Your task to perform on an android device: delete the emails in spam in the gmail app Image 0: 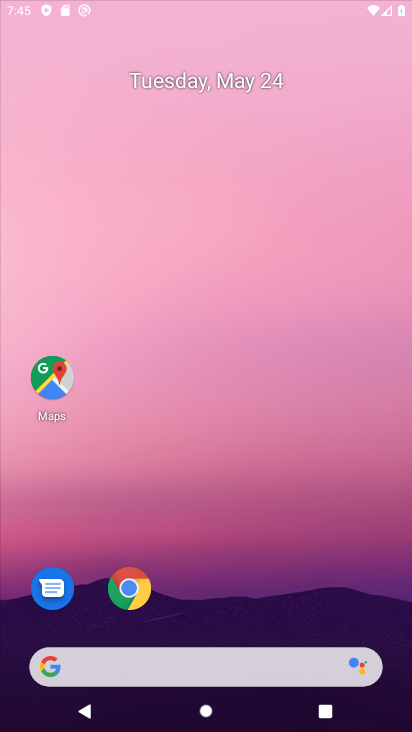
Step 0: drag from (345, 2) to (311, 2)
Your task to perform on an android device: delete the emails in spam in the gmail app Image 1: 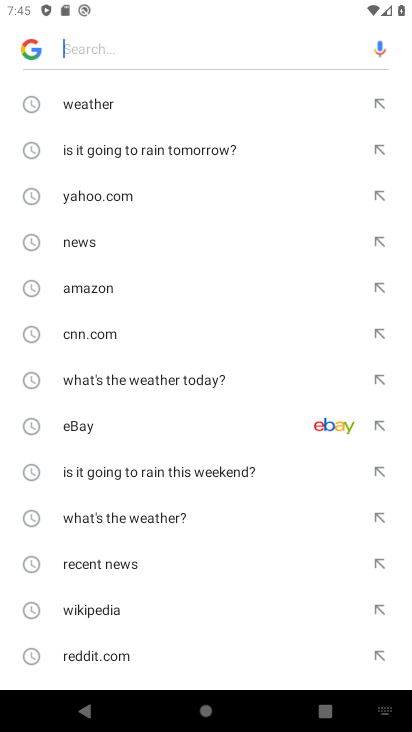
Step 1: press home button
Your task to perform on an android device: delete the emails in spam in the gmail app Image 2: 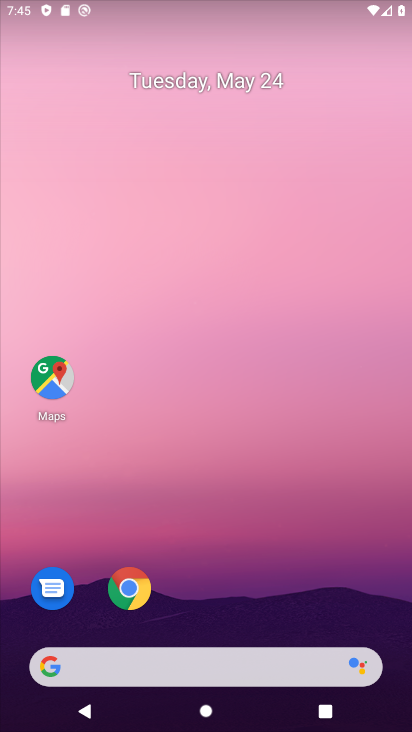
Step 2: drag from (184, 590) to (251, 110)
Your task to perform on an android device: delete the emails in spam in the gmail app Image 3: 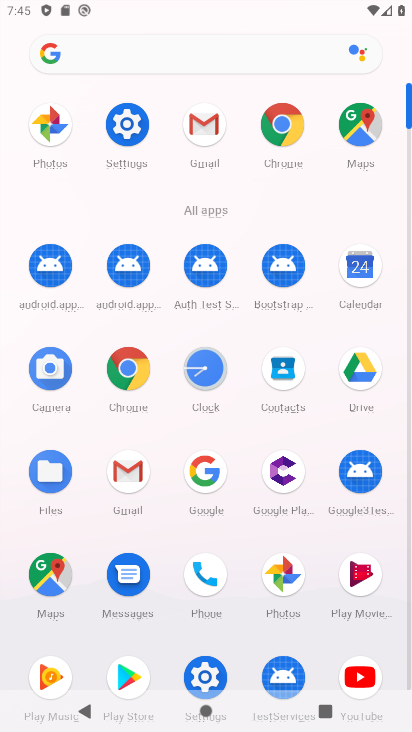
Step 3: click (136, 463)
Your task to perform on an android device: delete the emails in spam in the gmail app Image 4: 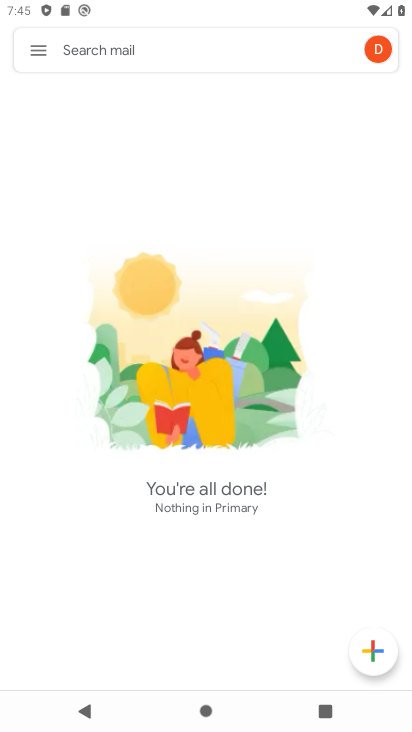
Step 4: click (40, 55)
Your task to perform on an android device: delete the emails in spam in the gmail app Image 5: 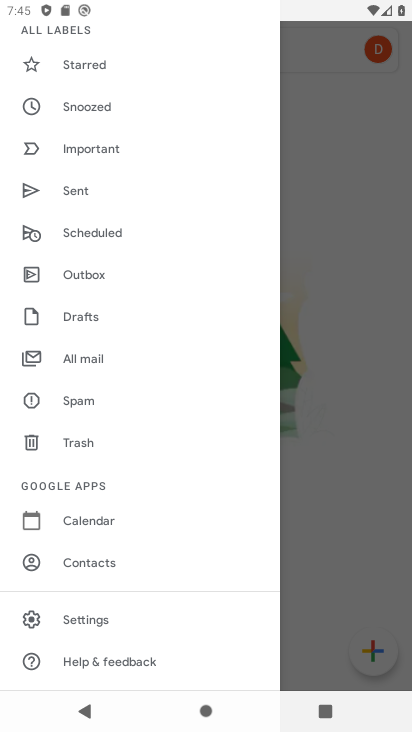
Step 5: click (113, 405)
Your task to perform on an android device: delete the emails in spam in the gmail app Image 6: 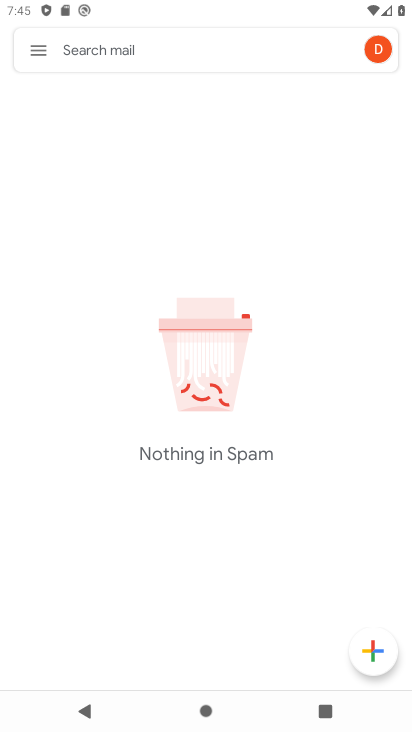
Step 6: click (26, 54)
Your task to perform on an android device: delete the emails in spam in the gmail app Image 7: 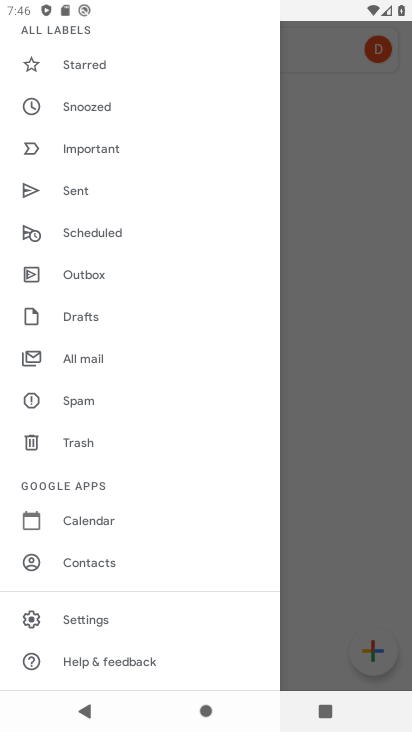
Step 7: click (113, 390)
Your task to perform on an android device: delete the emails in spam in the gmail app Image 8: 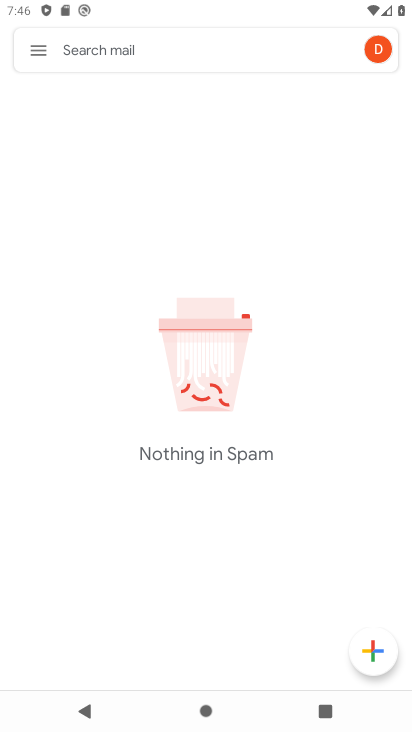
Step 8: task complete